Your task to perform on an android device: Open location settings Image 0: 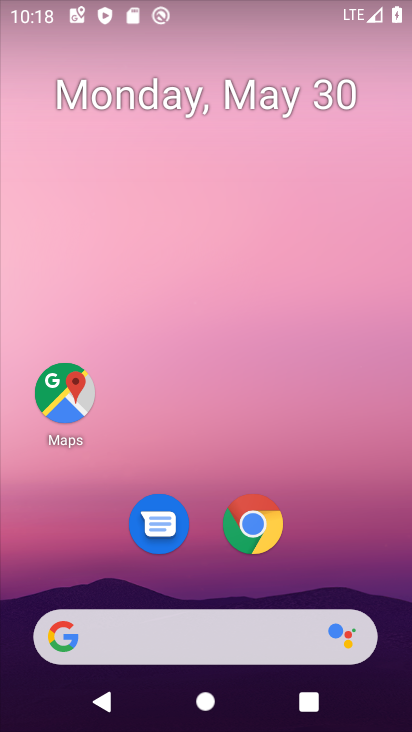
Step 0: drag from (298, 539) to (296, 1)
Your task to perform on an android device: Open location settings Image 1: 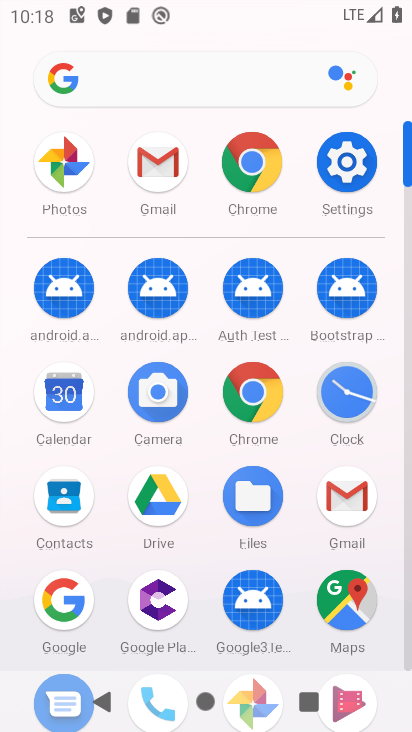
Step 1: click (356, 164)
Your task to perform on an android device: Open location settings Image 2: 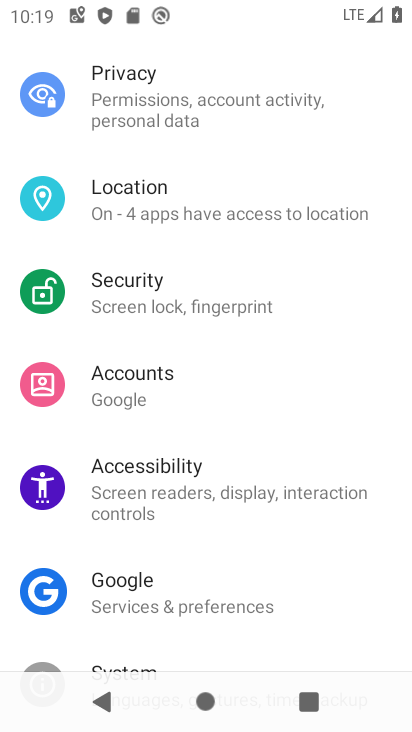
Step 2: click (251, 210)
Your task to perform on an android device: Open location settings Image 3: 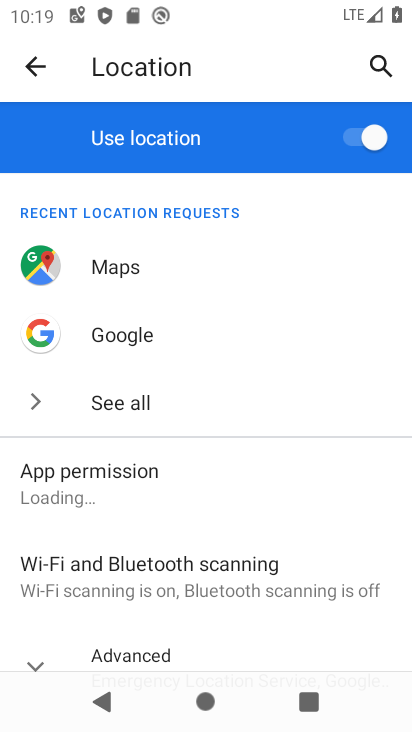
Step 3: task complete